Your task to perform on an android device: turn on javascript in the chrome app Image 0: 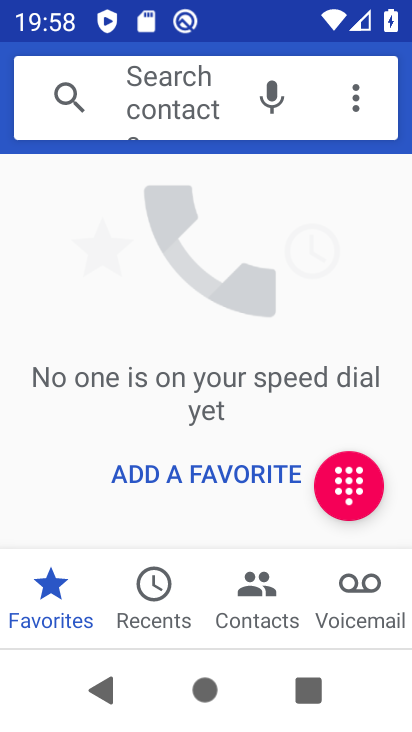
Step 0: press home button
Your task to perform on an android device: turn on javascript in the chrome app Image 1: 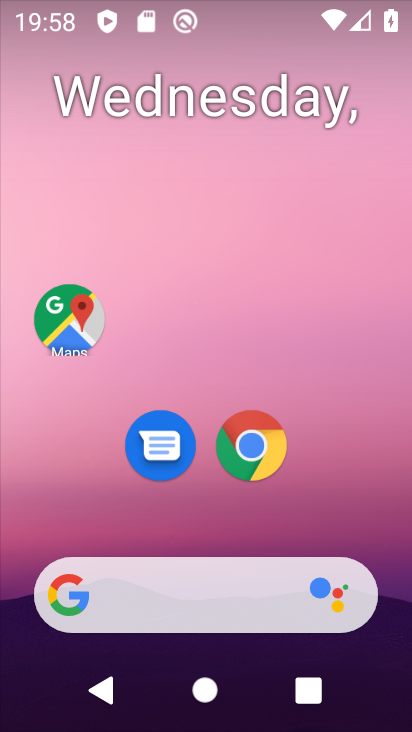
Step 1: click (256, 449)
Your task to perform on an android device: turn on javascript in the chrome app Image 2: 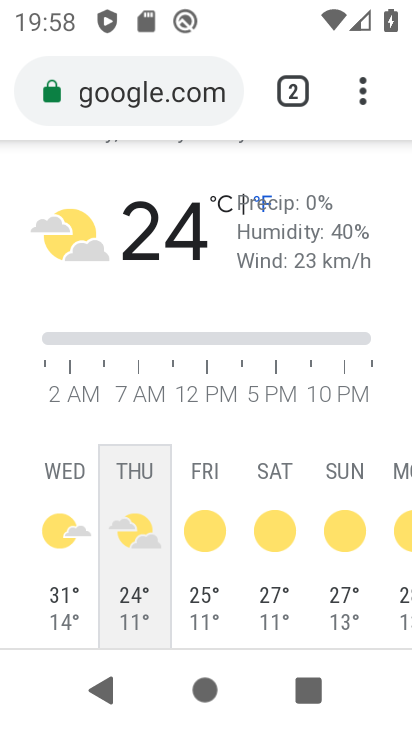
Step 2: click (360, 81)
Your task to perform on an android device: turn on javascript in the chrome app Image 3: 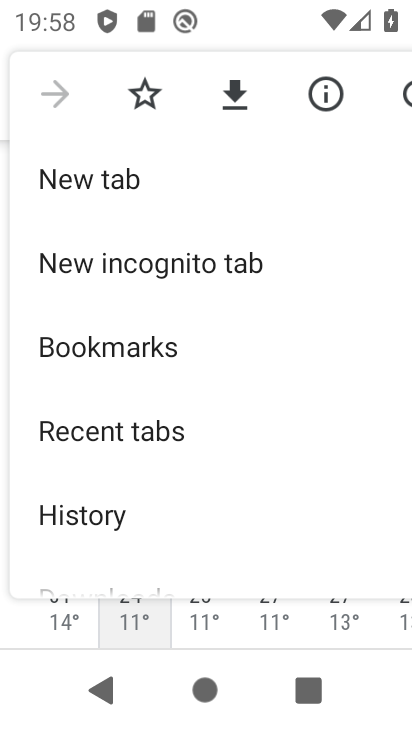
Step 3: drag from (243, 507) to (239, 246)
Your task to perform on an android device: turn on javascript in the chrome app Image 4: 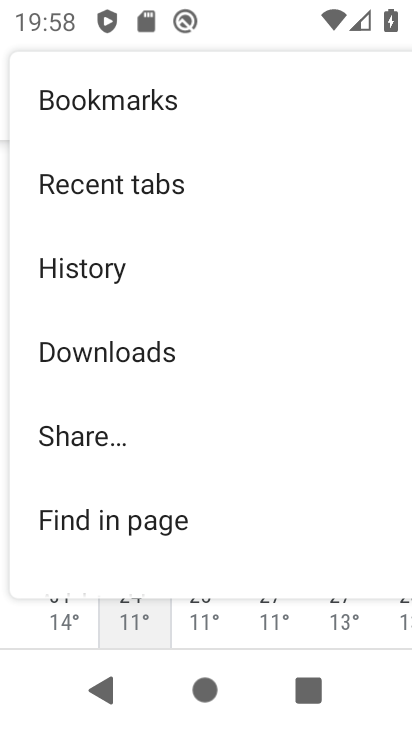
Step 4: drag from (166, 529) to (209, 225)
Your task to perform on an android device: turn on javascript in the chrome app Image 5: 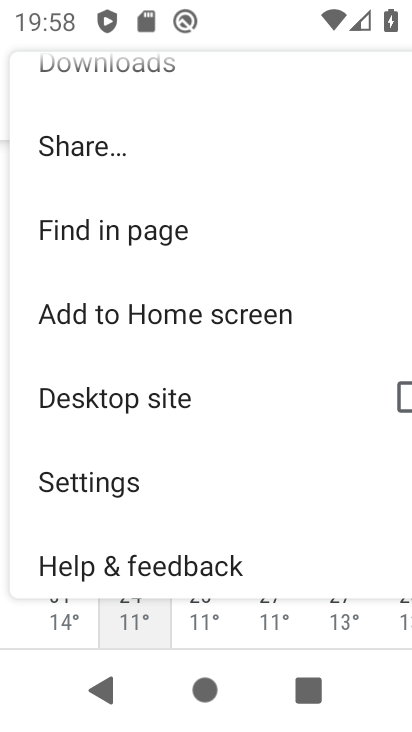
Step 5: click (100, 486)
Your task to perform on an android device: turn on javascript in the chrome app Image 6: 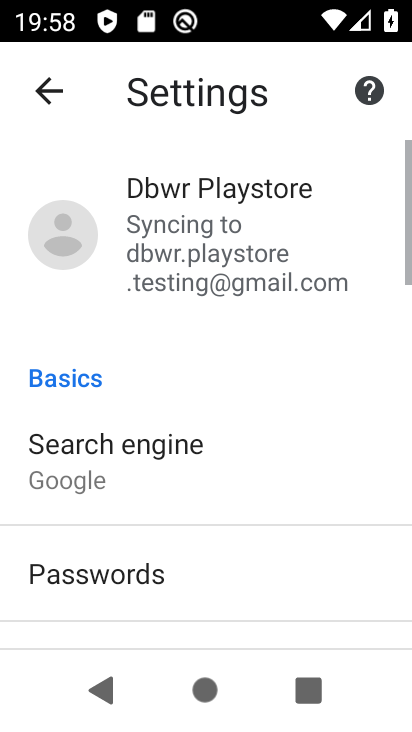
Step 6: drag from (138, 600) to (189, 146)
Your task to perform on an android device: turn on javascript in the chrome app Image 7: 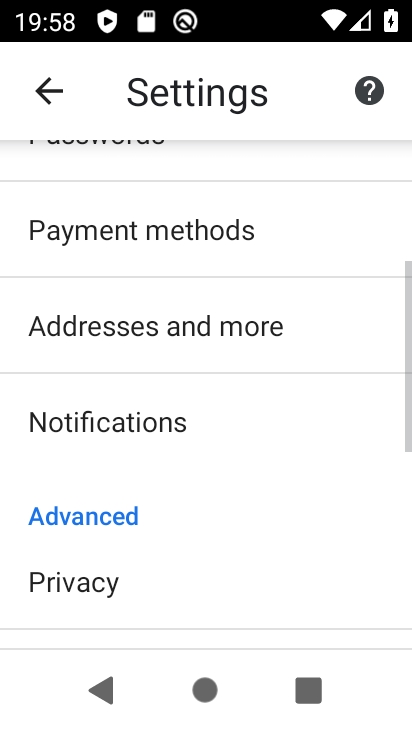
Step 7: drag from (142, 560) to (174, 270)
Your task to perform on an android device: turn on javascript in the chrome app Image 8: 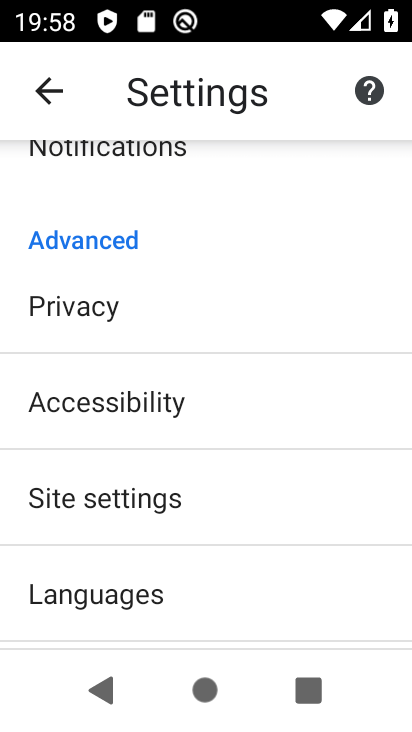
Step 8: click (158, 519)
Your task to perform on an android device: turn on javascript in the chrome app Image 9: 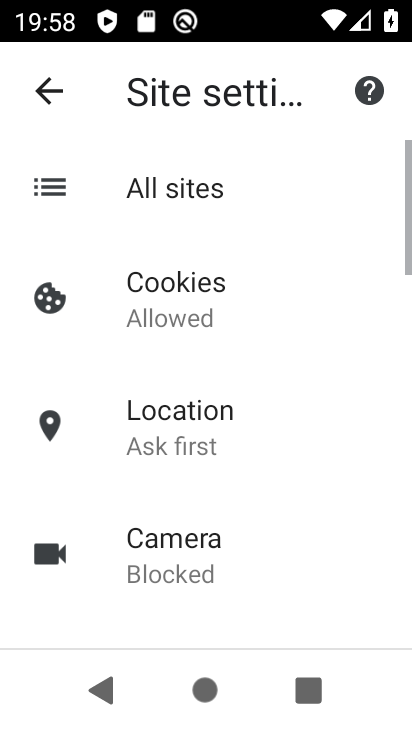
Step 9: drag from (190, 568) to (247, 232)
Your task to perform on an android device: turn on javascript in the chrome app Image 10: 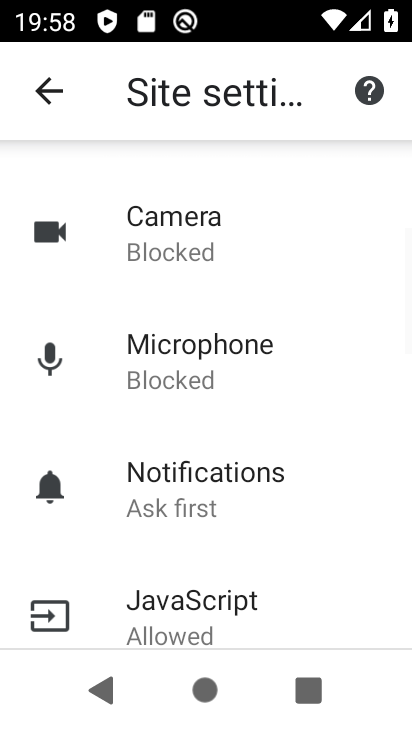
Step 10: drag from (224, 549) to (239, 432)
Your task to perform on an android device: turn on javascript in the chrome app Image 11: 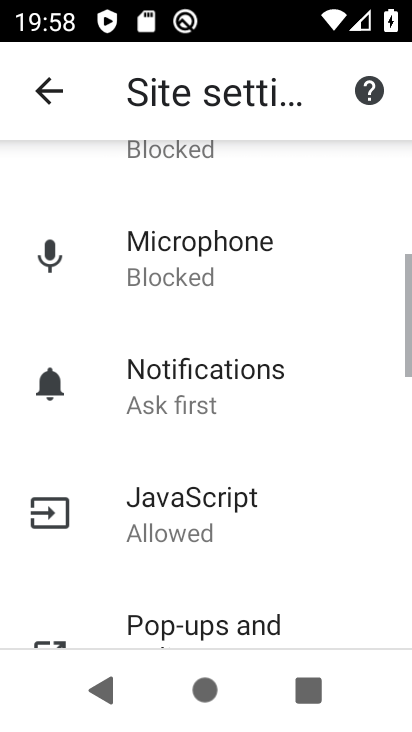
Step 11: click (228, 502)
Your task to perform on an android device: turn on javascript in the chrome app Image 12: 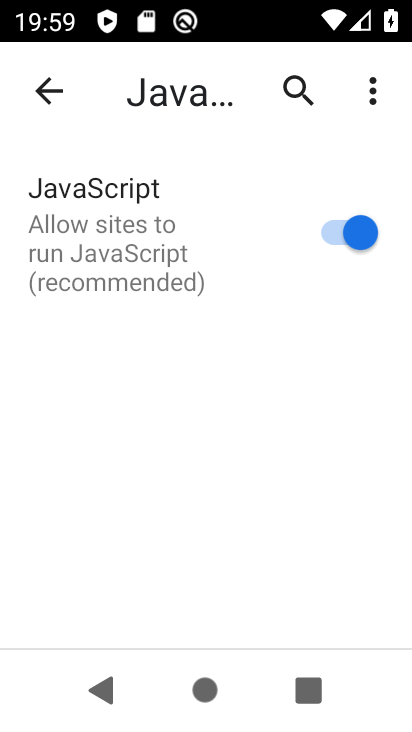
Step 12: task complete